Your task to perform on an android device: change the clock style Image 0: 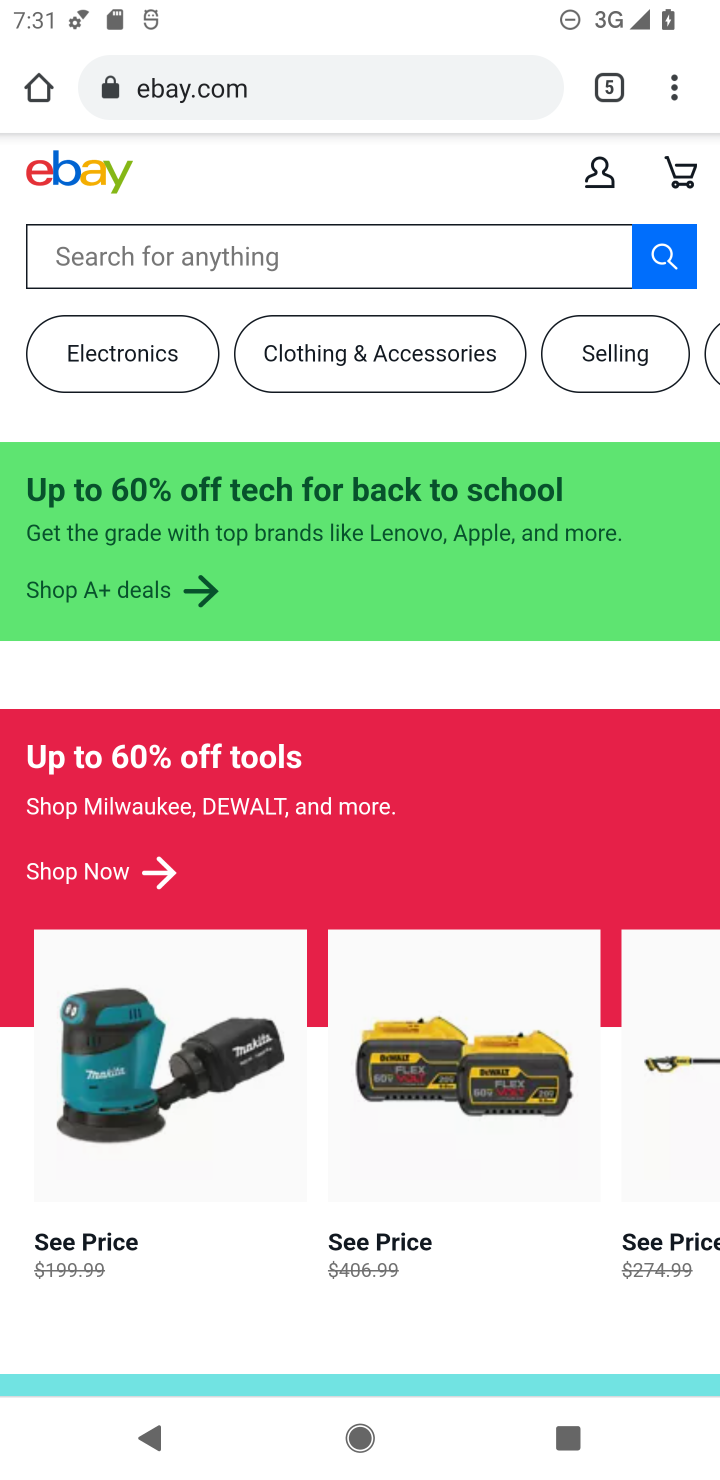
Step 0: press home button
Your task to perform on an android device: change the clock style Image 1: 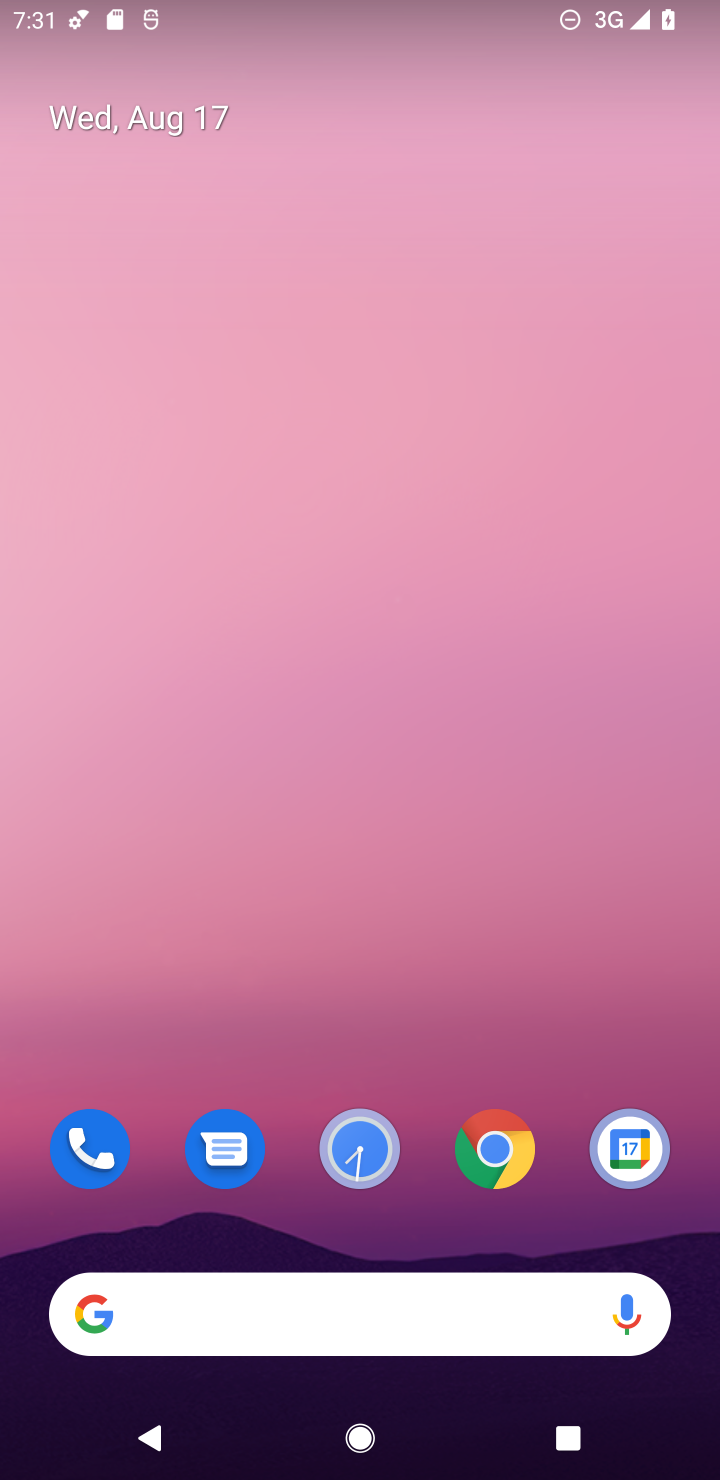
Step 1: click (364, 1152)
Your task to perform on an android device: change the clock style Image 2: 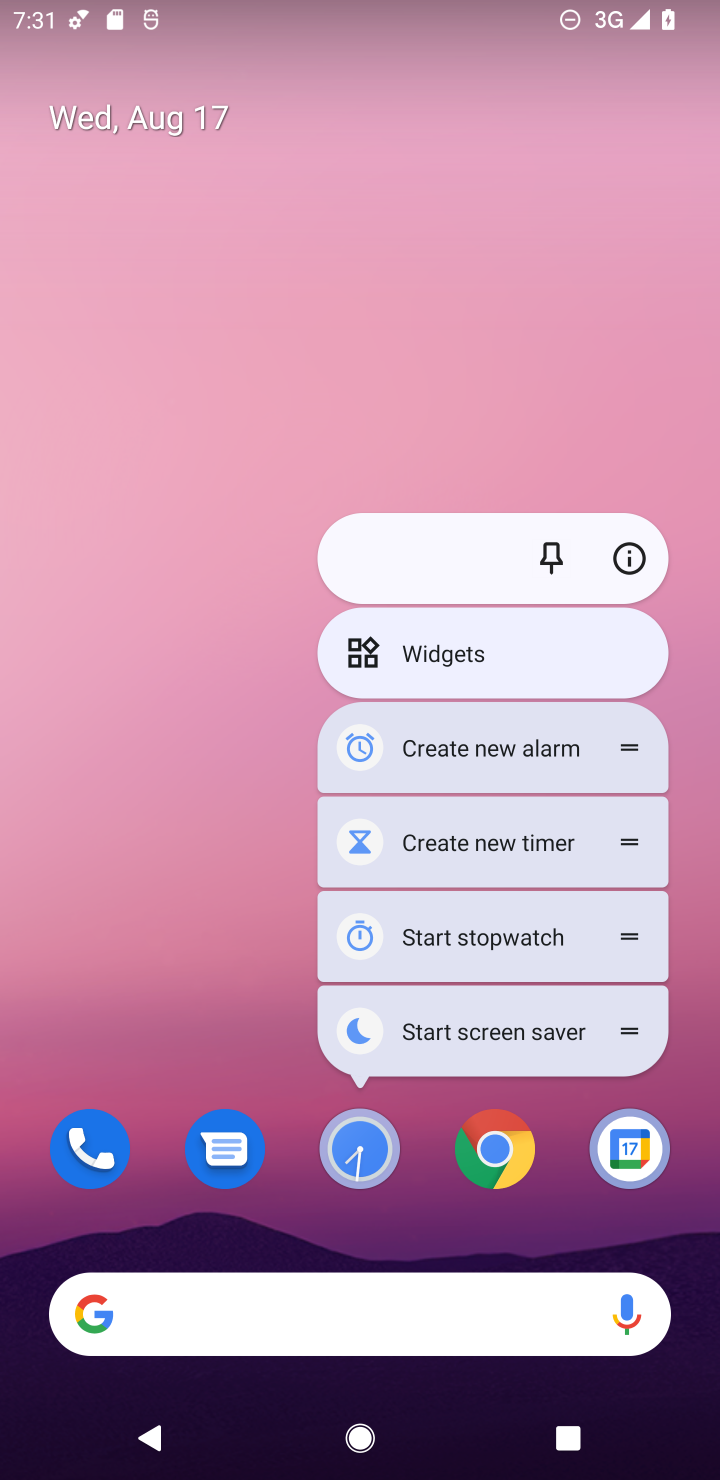
Step 2: click (350, 1161)
Your task to perform on an android device: change the clock style Image 3: 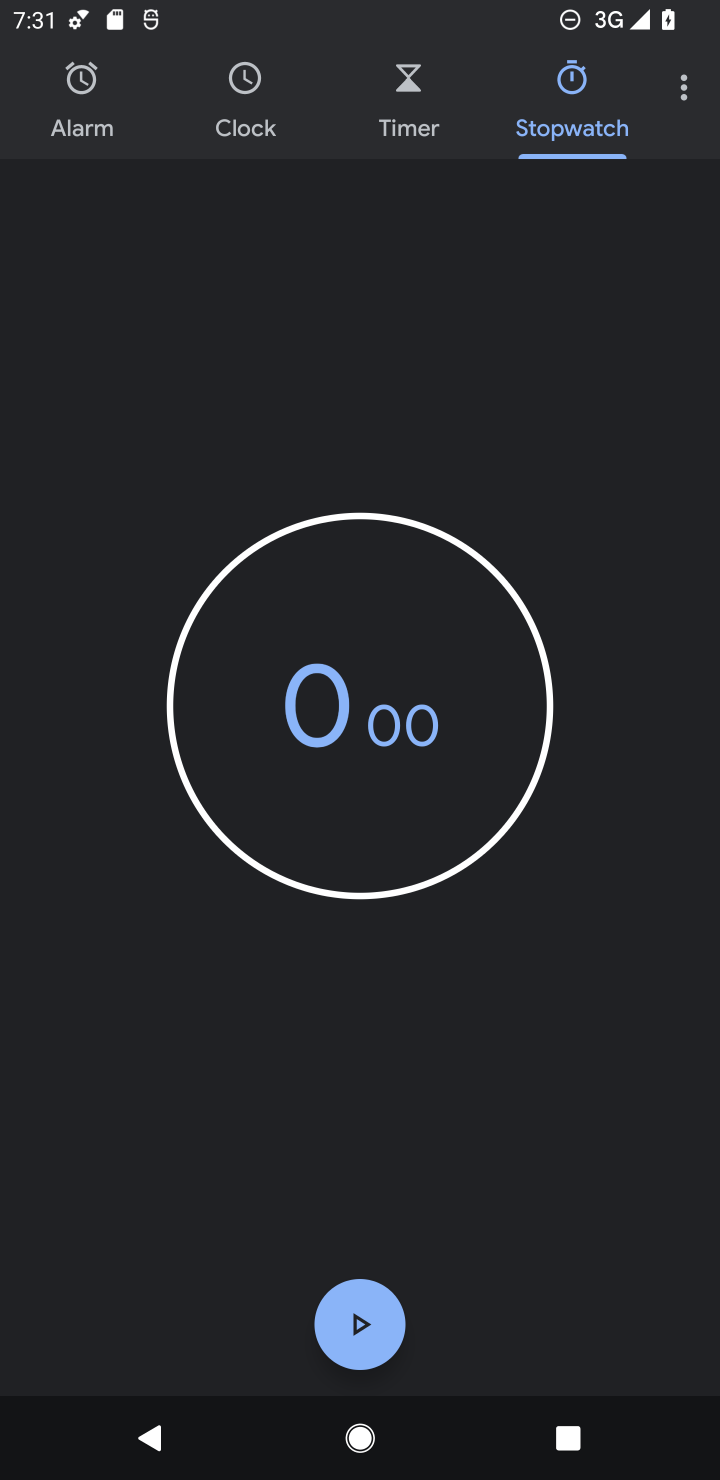
Step 3: click (676, 92)
Your task to perform on an android device: change the clock style Image 4: 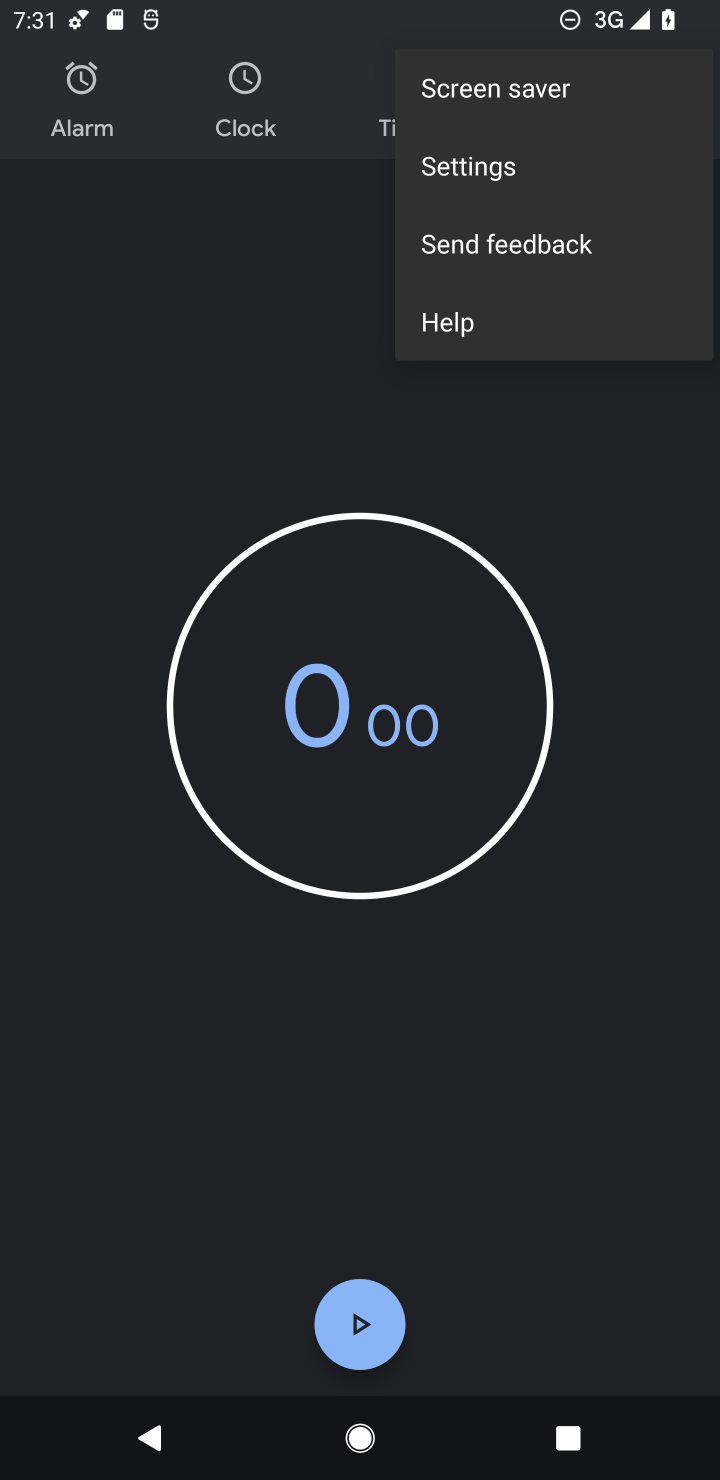
Step 4: click (471, 170)
Your task to perform on an android device: change the clock style Image 5: 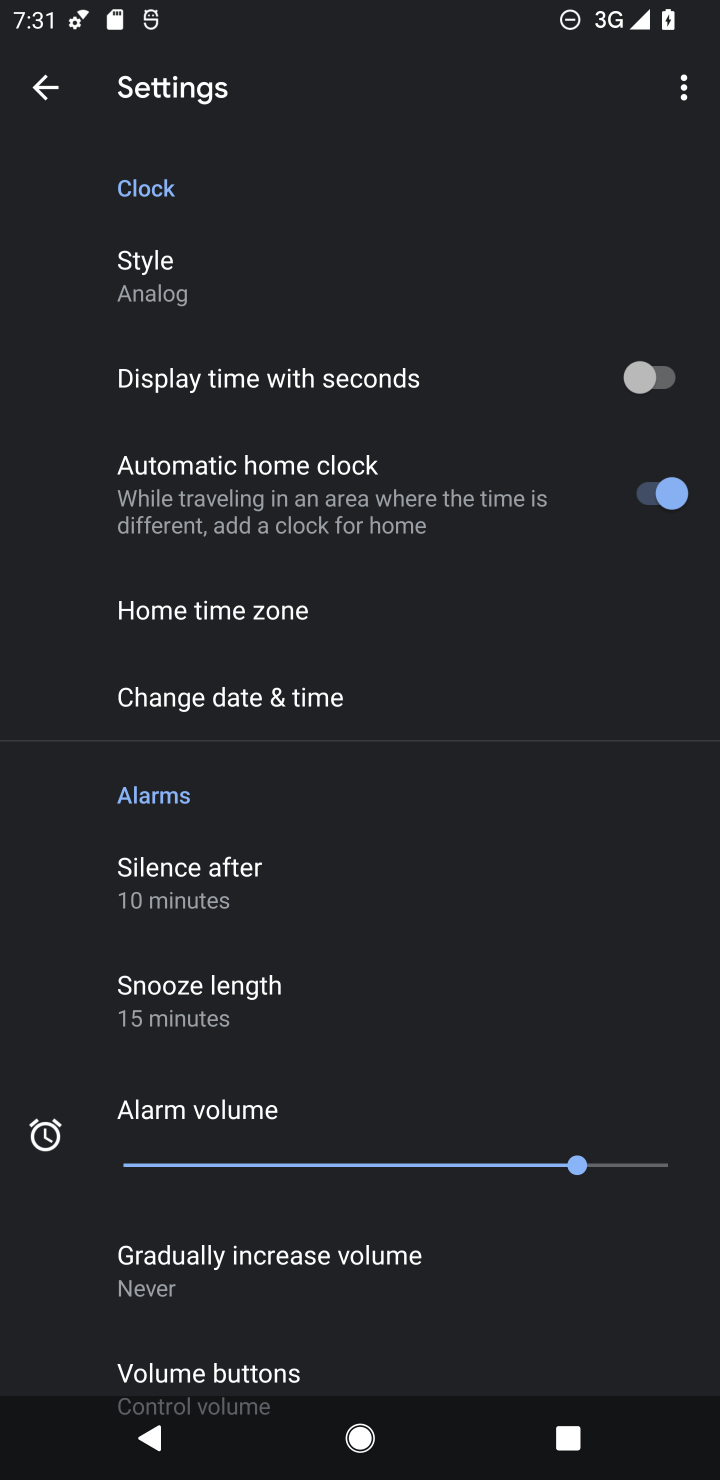
Step 5: click (145, 247)
Your task to perform on an android device: change the clock style Image 6: 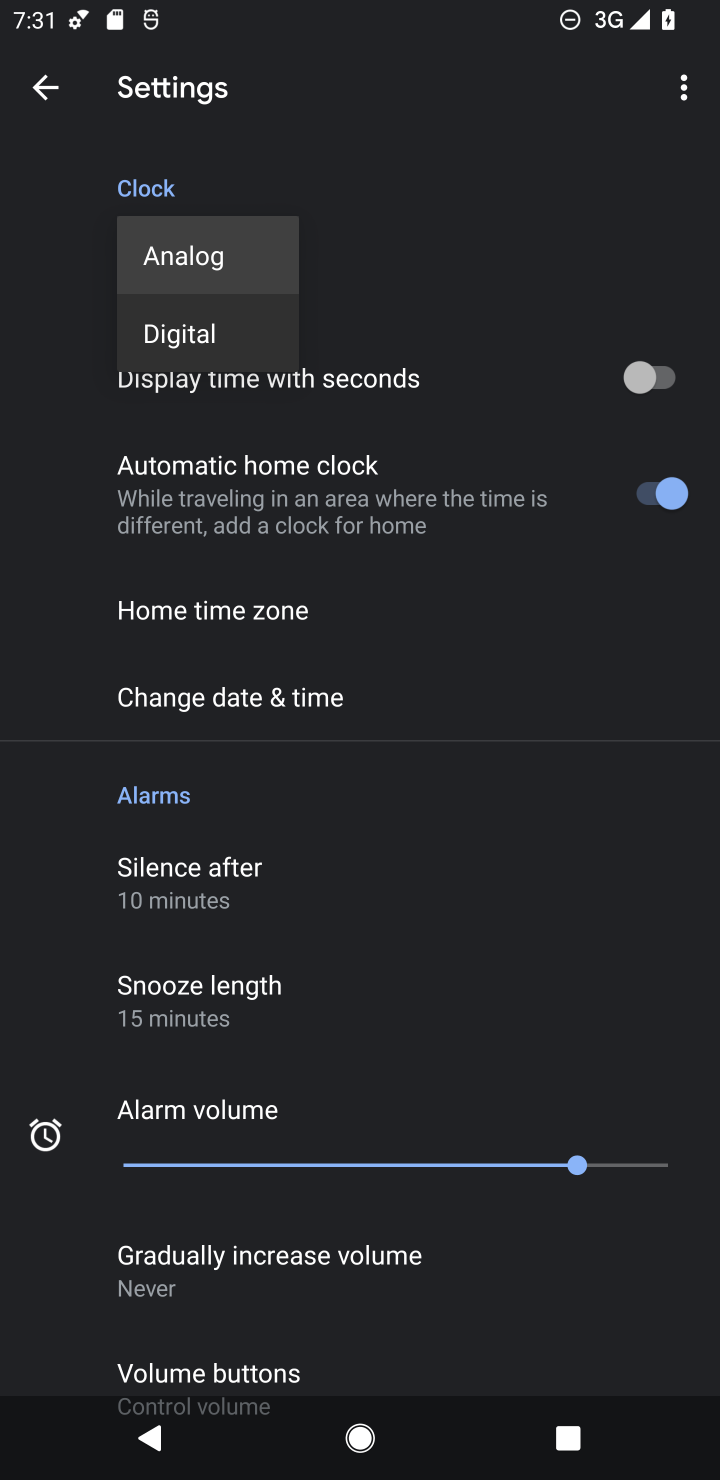
Step 6: click (166, 328)
Your task to perform on an android device: change the clock style Image 7: 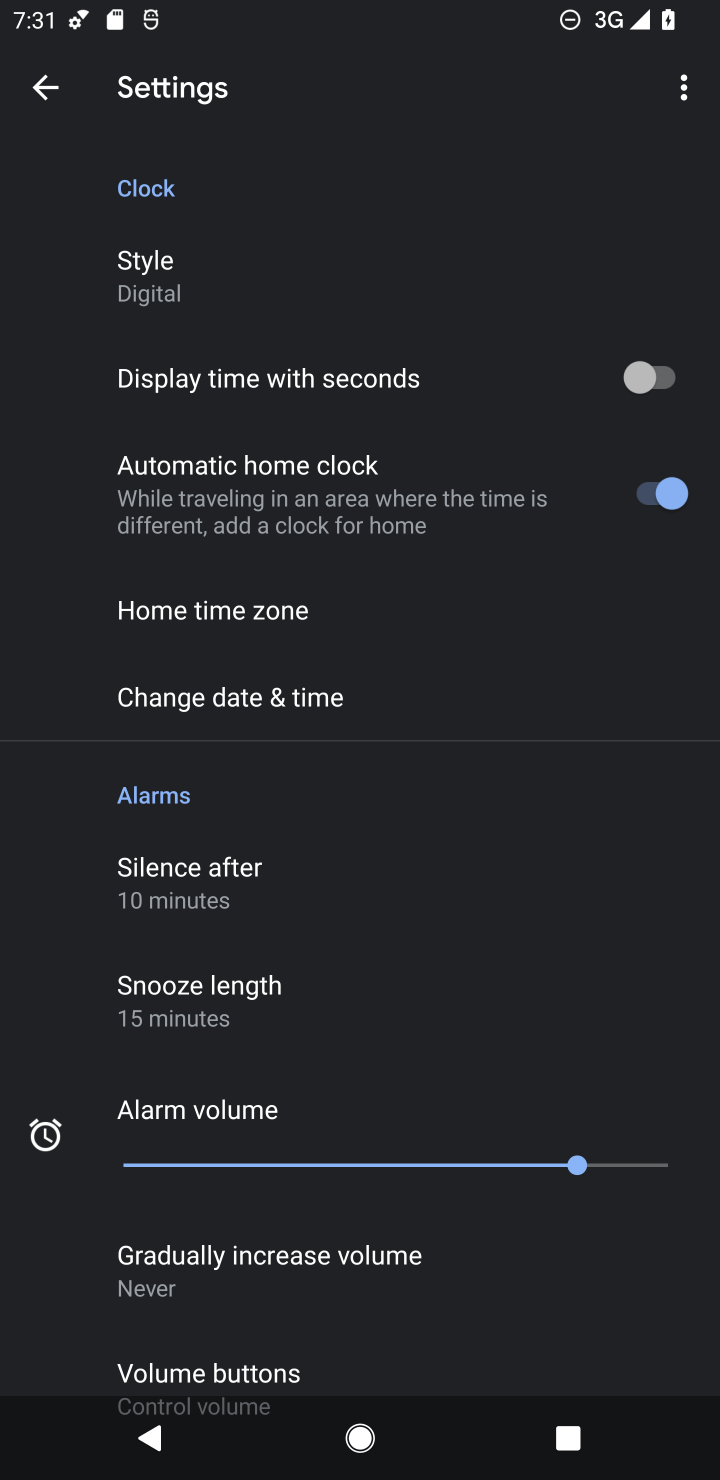
Step 7: task complete